Your task to perform on an android device: open a bookmark in the chrome app Image 0: 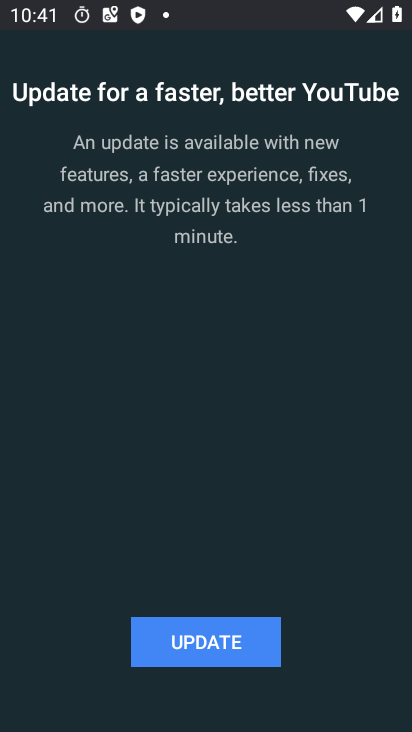
Step 0: press back button
Your task to perform on an android device: open a bookmark in the chrome app Image 1: 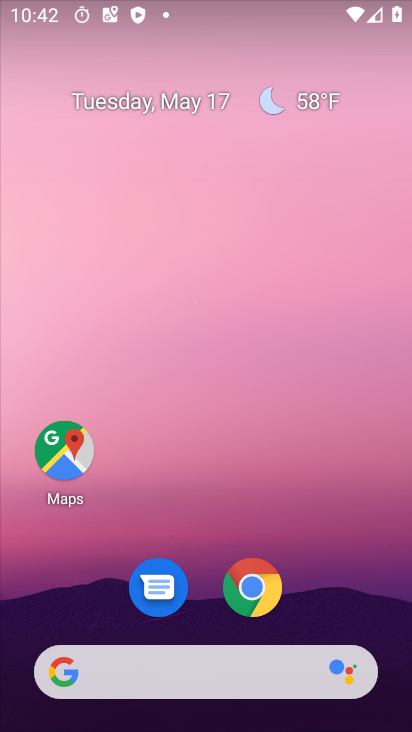
Step 1: click (252, 587)
Your task to perform on an android device: open a bookmark in the chrome app Image 2: 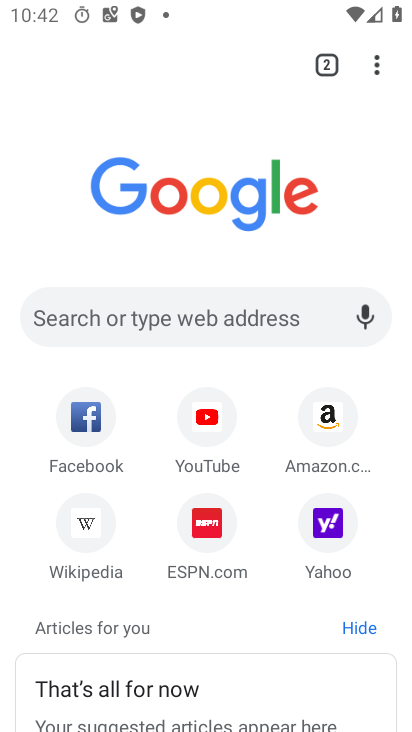
Step 2: click (377, 64)
Your task to perform on an android device: open a bookmark in the chrome app Image 3: 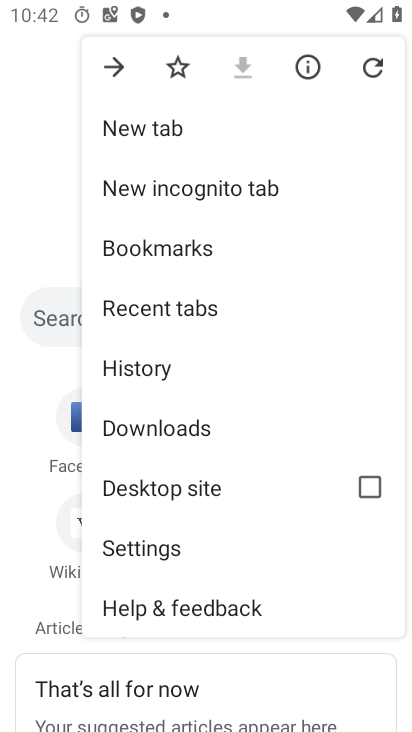
Step 3: click (195, 248)
Your task to perform on an android device: open a bookmark in the chrome app Image 4: 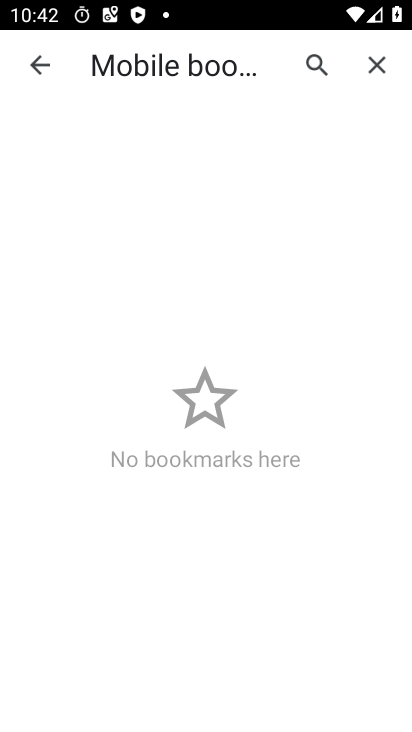
Step 4: task complete